Your task to perform on an android device: Go to wifi settings Image 0: 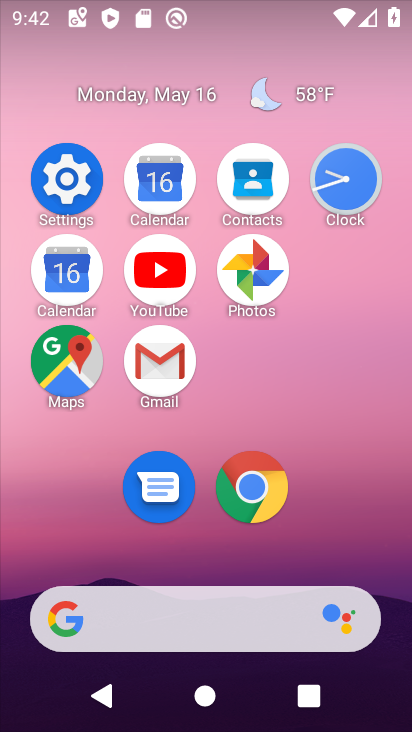
Step 0: click (65, 171)
Your task to perform on an android device: Go to wifi settings Image 1: 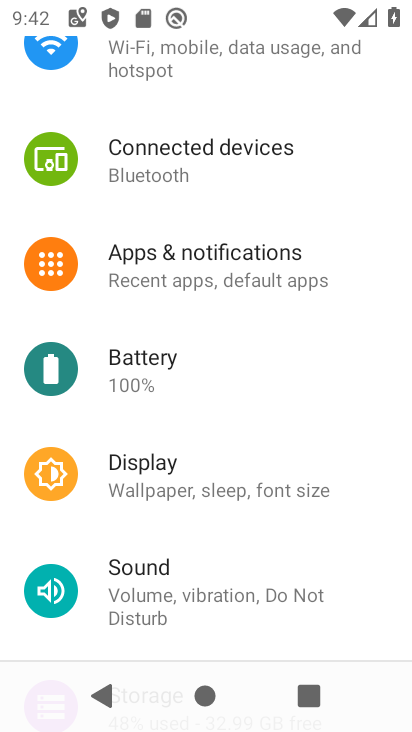
Step 1: drag from (259, 183) to (270, 471)
Your task to perform on an android device: Go to wifi settings Image 2: 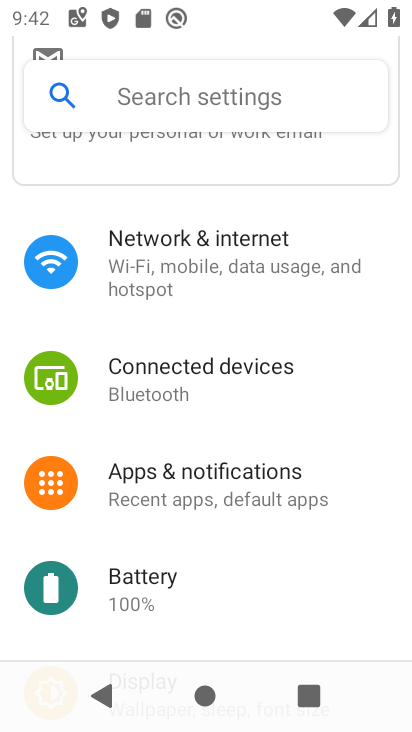
Step 2: click (257, 257)
Your task to perform on an android device: Go to wifi settings Image 3: 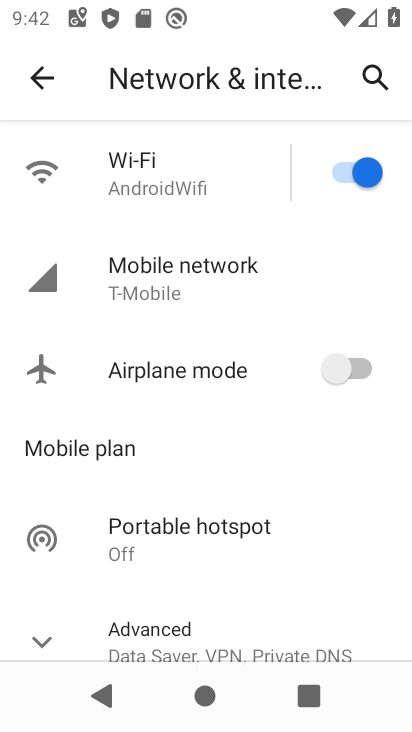
Step 3: click (176, 178)
Your task to perform on an android device: Go to wifi settings Image 4: 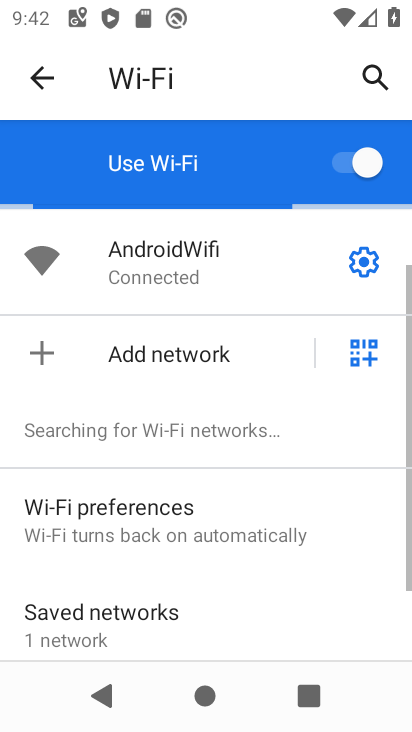
Step 4: click (372, 260)
Your task to perform on an android device: Go to wifi settings Image 5: 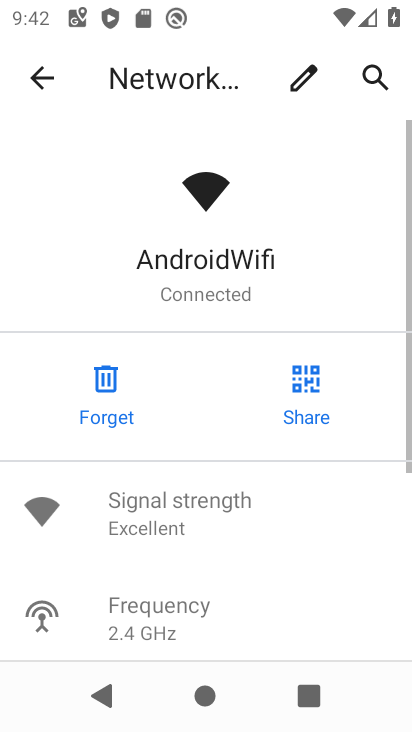
Step 5: task complete